Your task to perform on an android device: Find coffee shops on Maps Image 0: 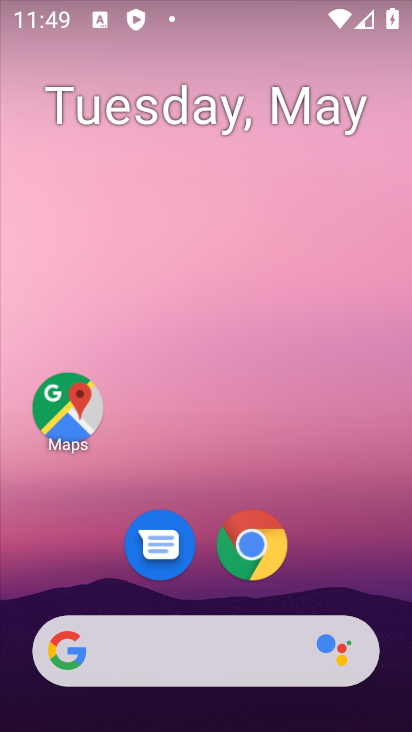
Step 0: click (63, 405)
Your task to perform on an android device: Find coffee shops on Maps Image 1: 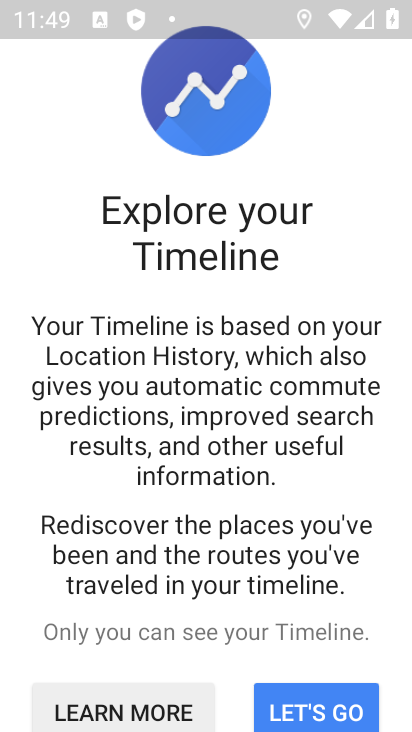
Step 1: click (296, 709)
Your task to perform on an android device: Find coffee shops on Maps Image 2: 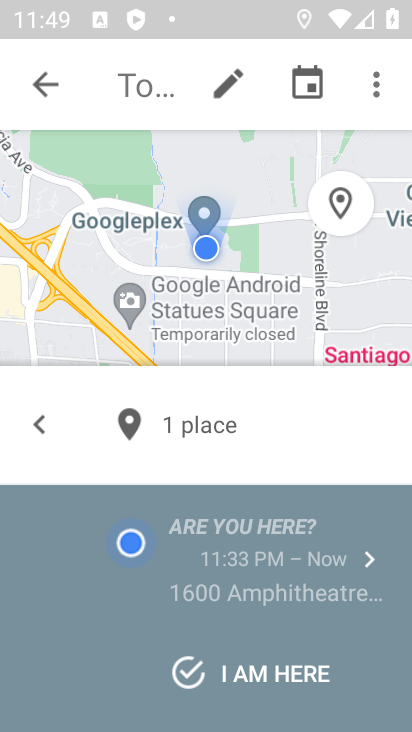
Step 2: click (236, 75)
Your task to perform on an android device: Find coffee shops on Maps Image 3: 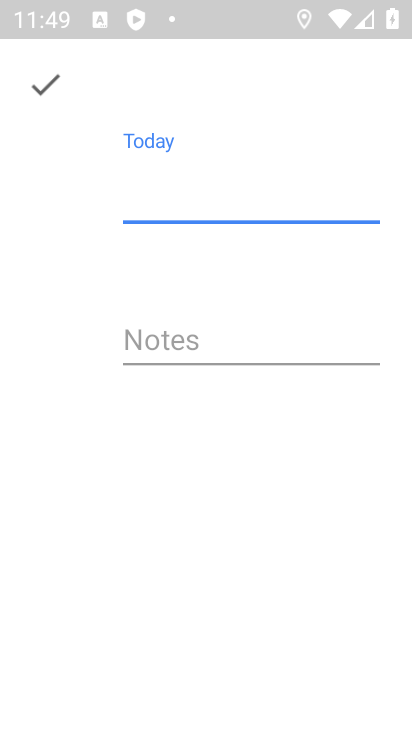
Step 3: click (58, 82)
Your task to perform on an android device: Find coffee shops on Maps Image 4: 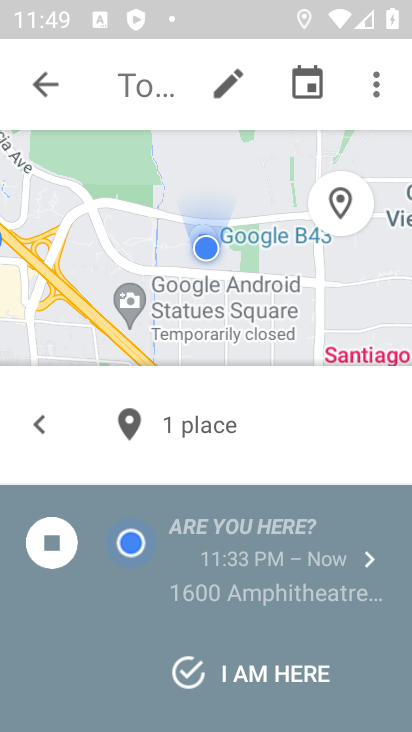
Step 4: click (45, 87)
Your task to perform on an android device: Find coffee shops on Maps Image 5: 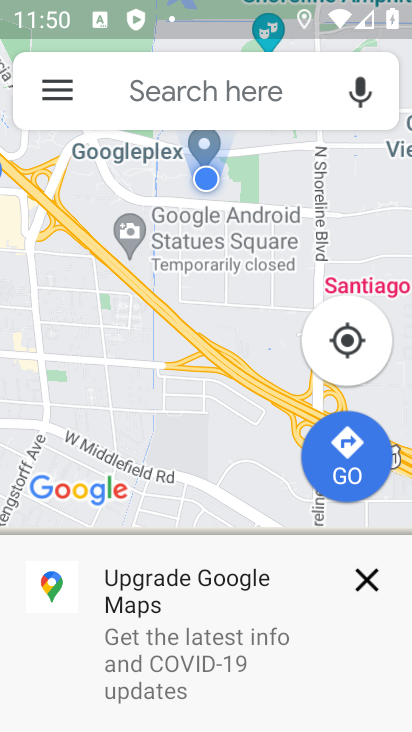
Step 5: click (202, 87)
Your task to perform on an android device: Find coffee shops on Maps Image 6: 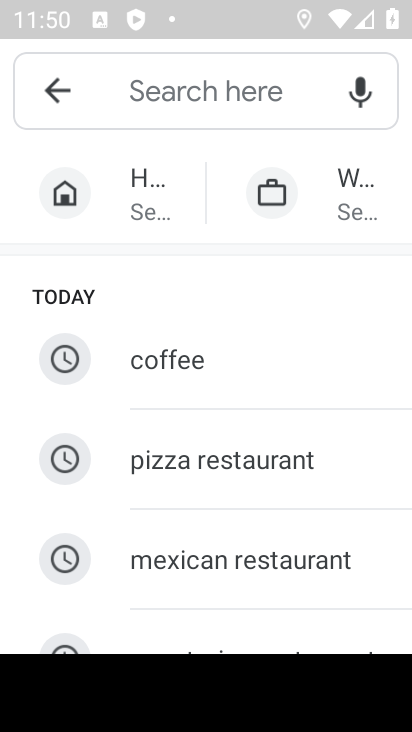
Step 6: type "coffee shops"
Your task to perform on an android device: Find coffee shops on Maps Image 7: 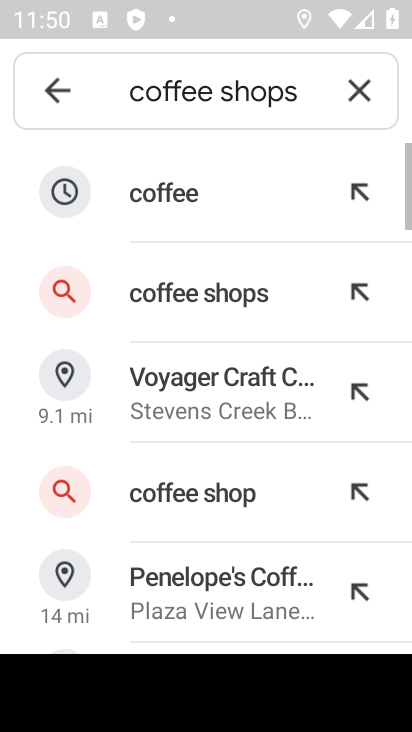
Step 7: click (215, 291)
Your task to perform on an android device: Find coffee shops on Maps Image 8: 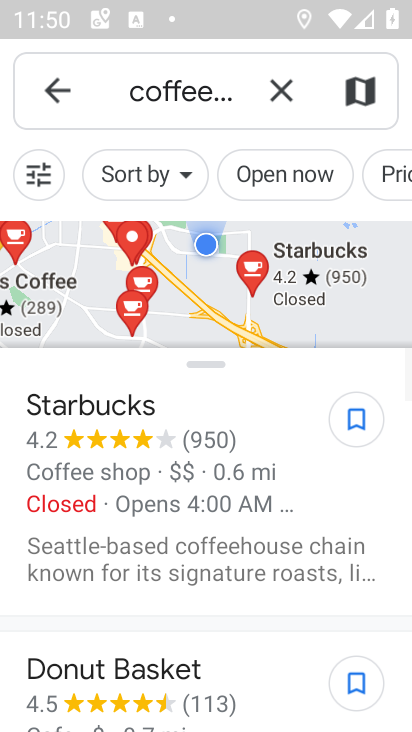
Step 8: task complete